Your task to perform on an android device: Search for sushi restaurants on Maps Image 0: 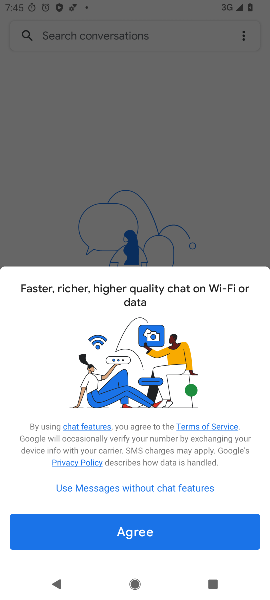
Step 0: press home button
Your task to perform on an android device: Search for sushi restaurants on Maps Image 1: 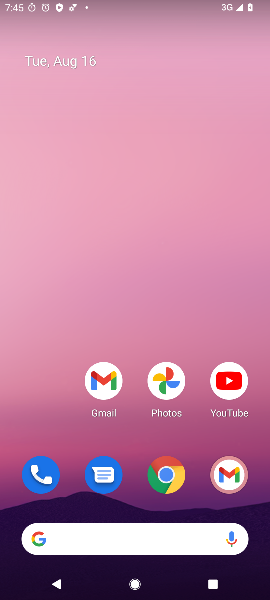
Step 1: drag from (258, 454) to (85, 19)
Your task to perform on an android device: Search for sushi restaurants on Maps Image 2: 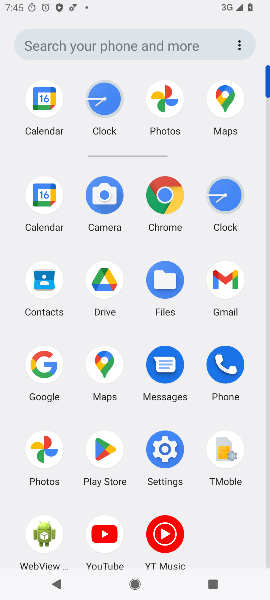
Step 2: click (113, 384)
Your task to perform on an android device: Search for sushi restaurants on Maps Image 3: 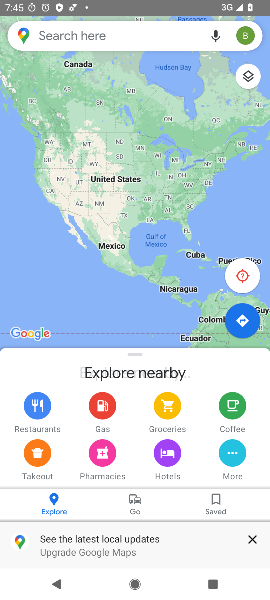
Step 3: click (65, 36)
Your task to perform on an android device: Search for sushi restaurants on Maps Image 4: 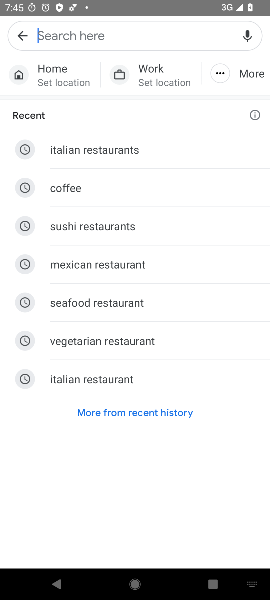
Step 4: click (108, 227)
Your task to perform on an android device: Search for sushi restaurants on Maps Image 5: 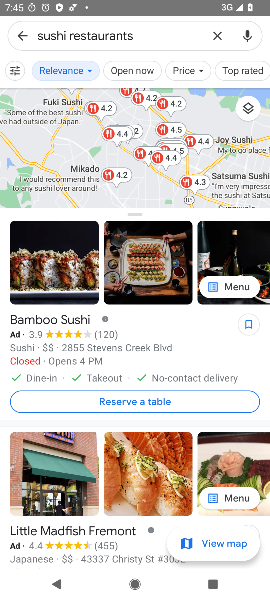
Step 5: task complete